Your task to perform on an android device: read, delete, or share a saved page in the chrome app Image 0: 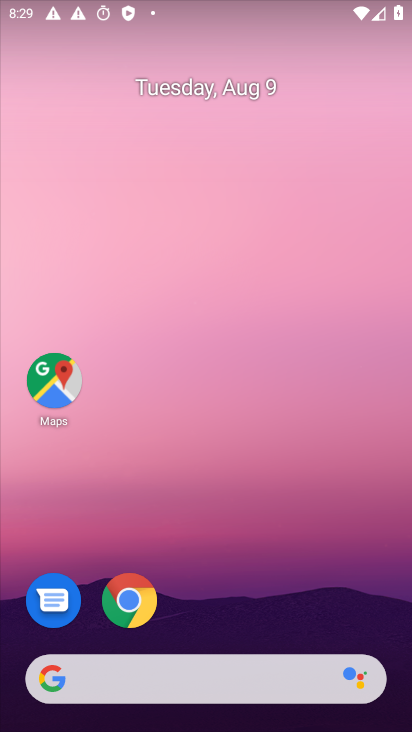
Step 0: press home button
Your task to perform on an android device: read, delete, or share a saved page in the chrome app Image 1: 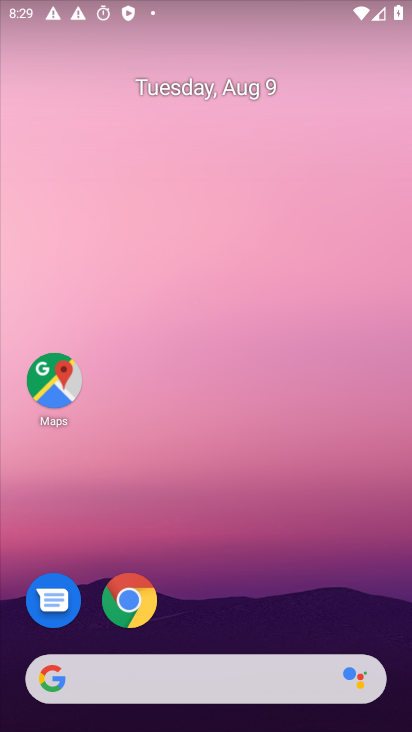
Step 1: click (124, 604)
Your task to perform on an android device: read, delete, or share a saved page in the chrome app Image 2: 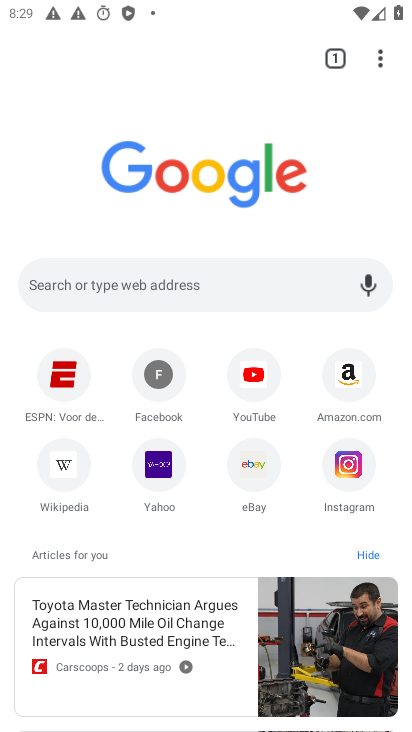
Step 2: drag from (379, 63) to (157, 386)
Your task to perform on an android device: read, delete, or share a saved page in the chrome app Image 3: 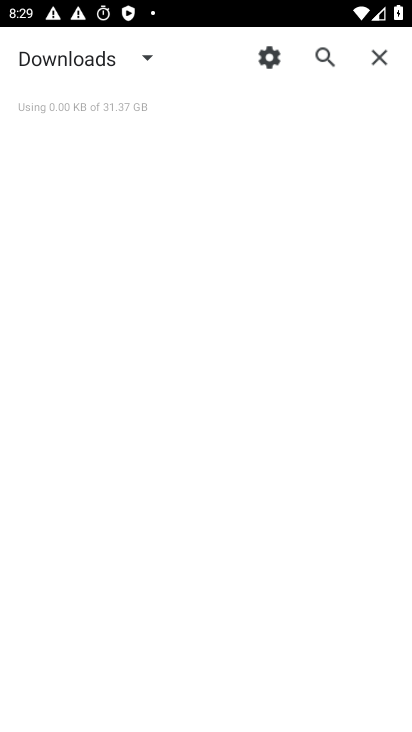
Step 3: click (135, 60)
Your task to perform on an android device: read, delete, or share a saved page in the chrome app Image 4: 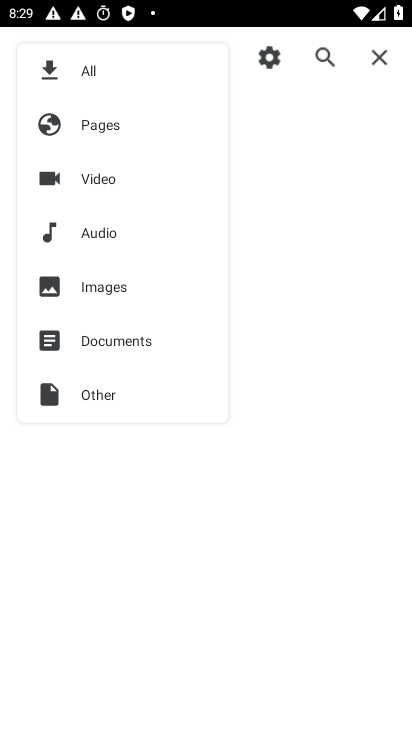
Step 4: click (98, 139)
Your task to perform on an android device: read, delete, or share a saved page in the chrome app Image 5: 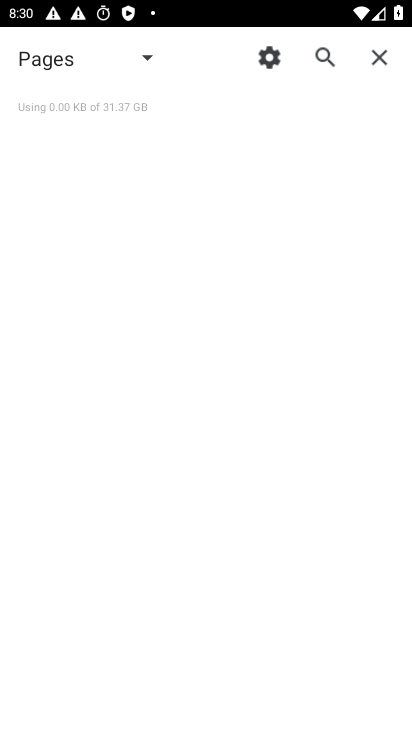
Step 5: task complete